Your task to perform on an android device: open the mobile data screen to see how much data has been used Image 0: 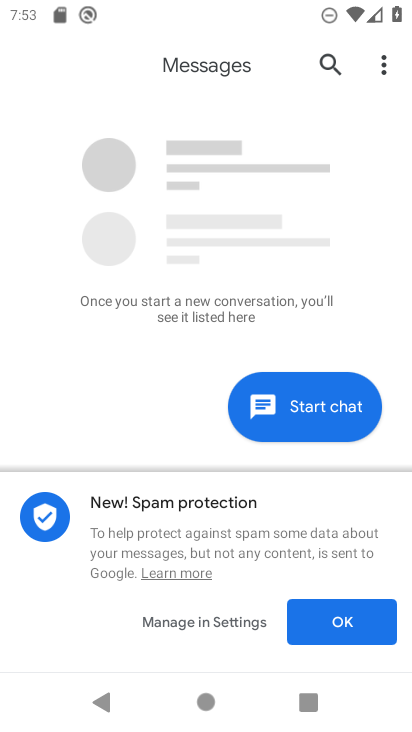
Step 0: press back button
Your task to perform on an android device: open the mobile data screen to see how much data has been used Image 1: 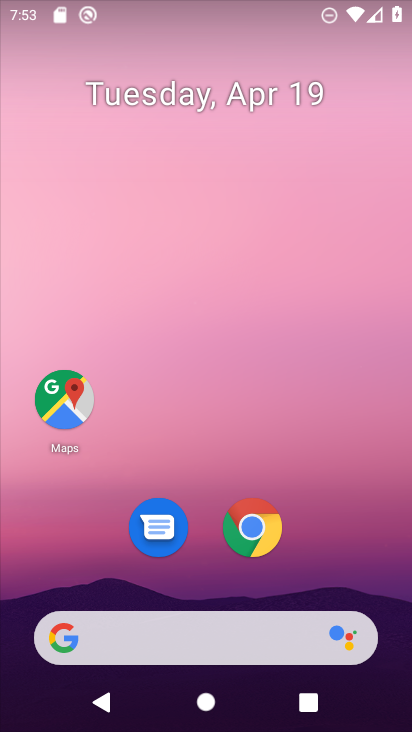
Step 1: drag from (164, 611) to (316, 34)
Your task to perform on an android device: open the mobile data screen to see how much data has been used Image 2: 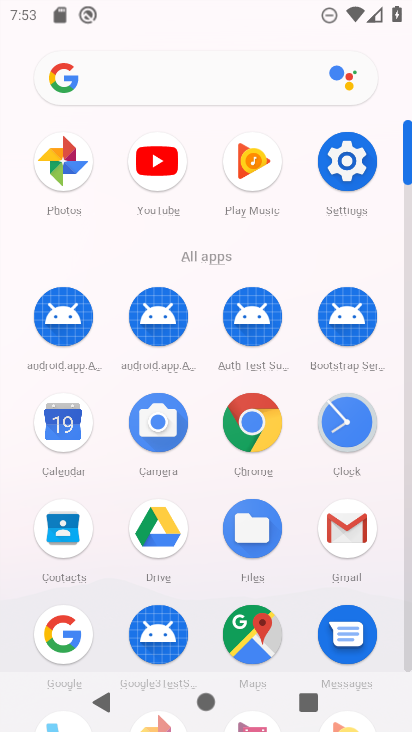
Step 2: drag from (225, 478) to (296, 275)
Your task to perform on an android device: open the mobile data screen to see how much data has been used Image 3: 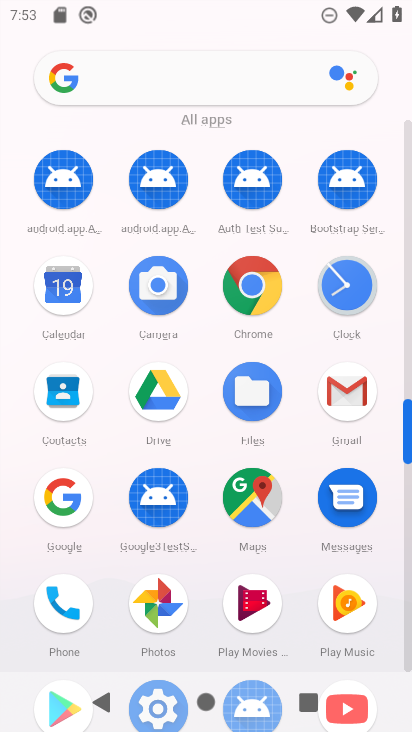
Step 3: drag from (177, 648) to (283, 375)
Your task to perform on an android device: open the mobile data screen to see how much data has been used Image 4: 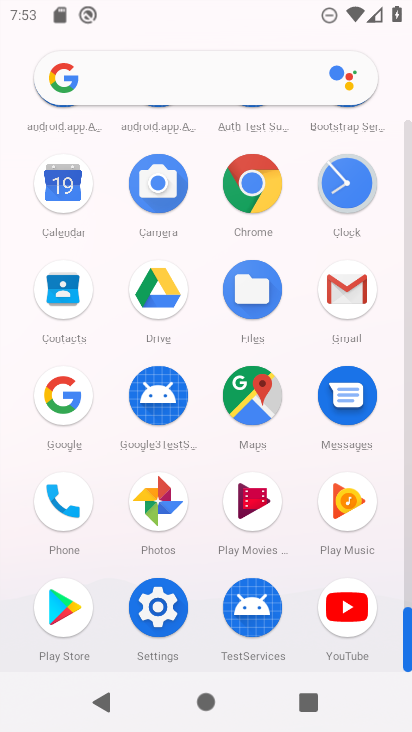
Step 4: click (152, 603)
Your task to perform on an android device: open the mobile data screen to see how much data has been used Image 5: 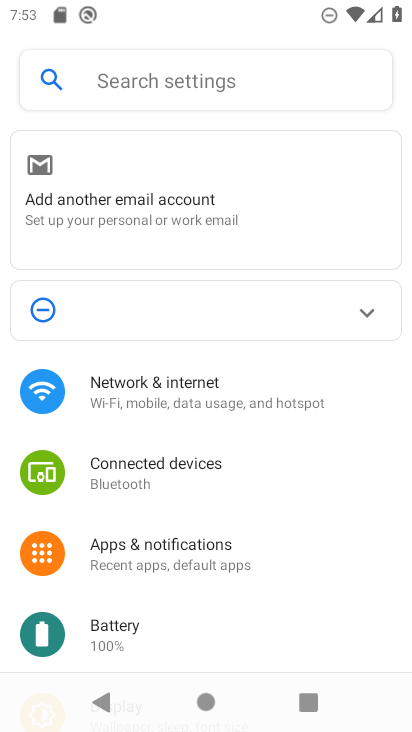
Step 5: click (250, 391)
Your task to perform on an android device: open the mobile data screen to see how much data has been used Image 6: 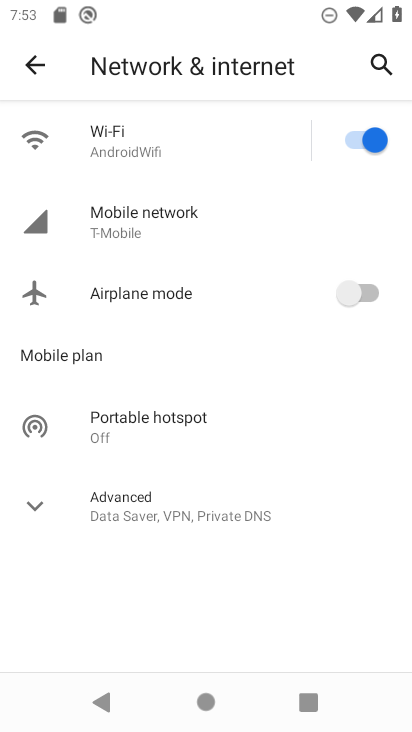
Step 6: click (178, 203)
Your task to perform on an android device: open the mobile data screen to see how much data has been used Image 7: 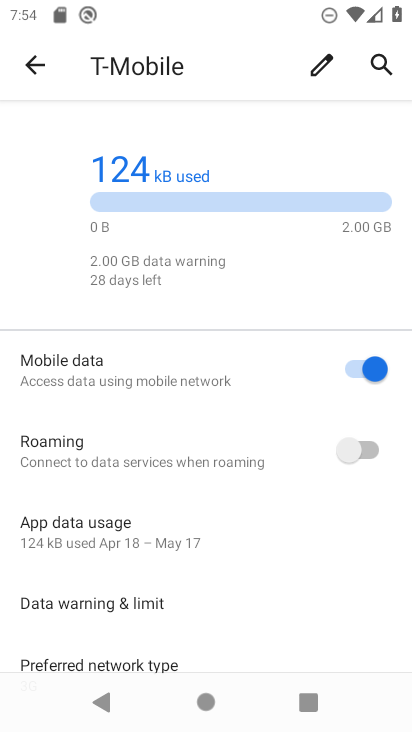
Step 7: task complete